Your task to perform on an android device: Do I have any events tomorrow? Image 0: 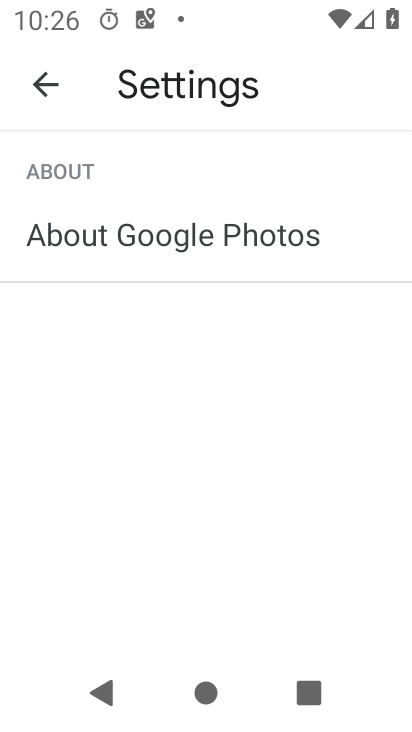
Step 0: press home button
Your task to perform on an android device: Do I have any events tomorrow? Image 1: 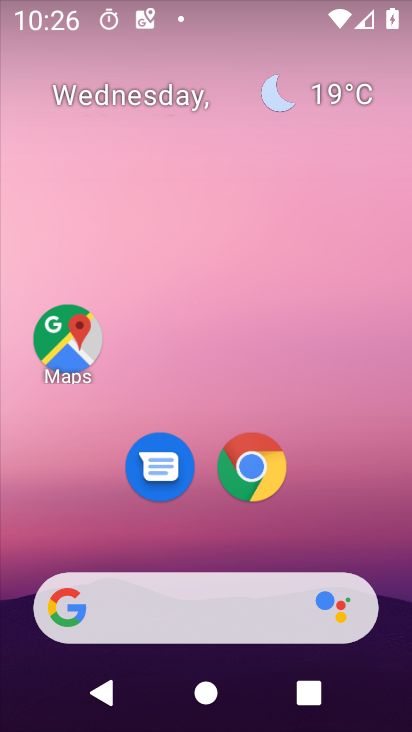
Step 1: click (138, 100)
Your task to perform on an android device: Do I have any events tomorrow? Image 2: 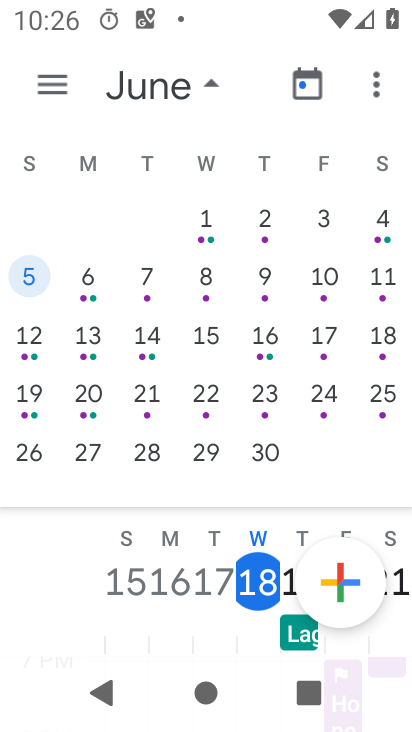
Step 2: drag from (52, 304) to (407, 311)
Your task to perform on an android device: Do I have any events tomorrow? Image 3: 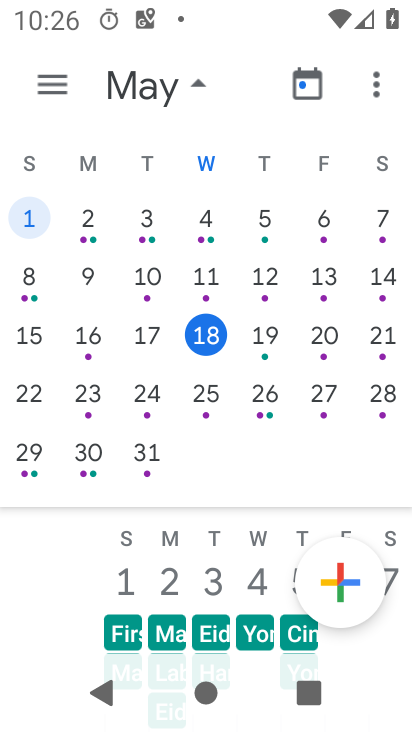
Step 3: click (264, 341)
Your task to perform on an android device: Do I have any events tomorrow? Image 4: 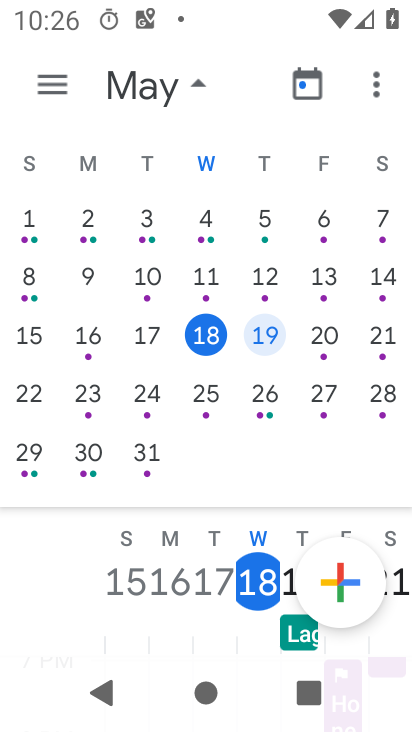
Step 4: task complete